Your task to perform on an android device: Open calendar and show me the second week of next month Image 0: 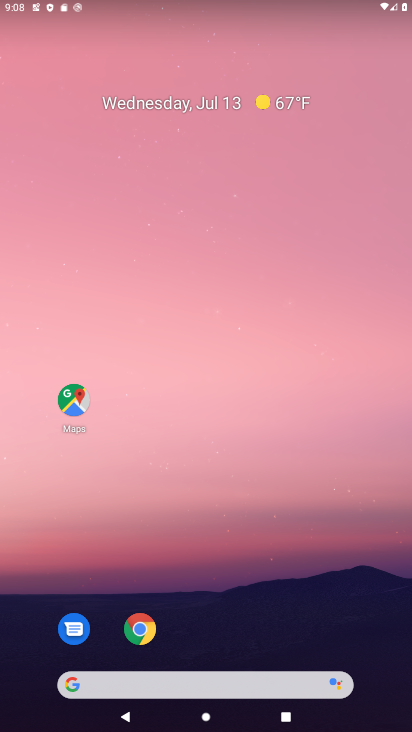
Step 0: drag from (240, 645) to (232, 132)
Your task to perform on an android device: Open calendar and show me the second week of next month Image 1: 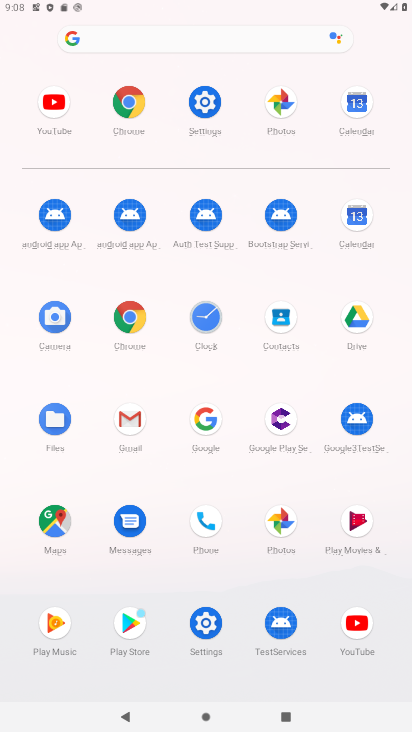
Step 1: click (358, 213)
Your task to perform on an android device: Open calendar and show me the second week of next month Image 2: 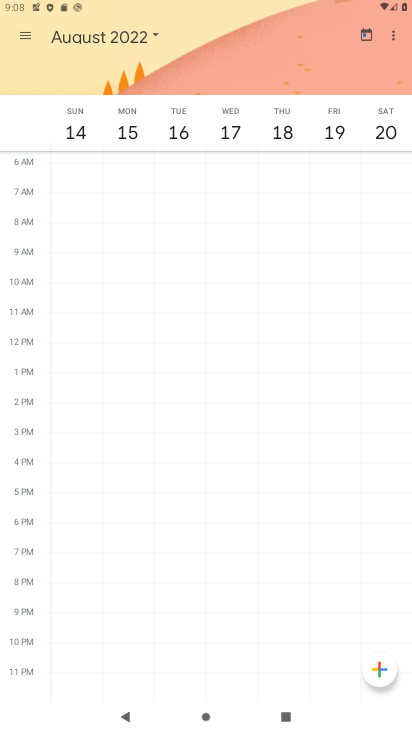
Step 2: task complete